Your task to perform on an android device: Open wifi settings Image 0: 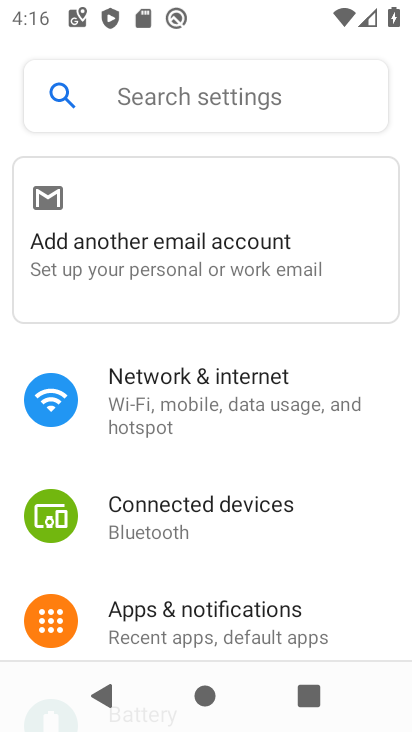
Step 0: click (214, 388)
Your task to perform on an android device: Open wifi settings Image 1: 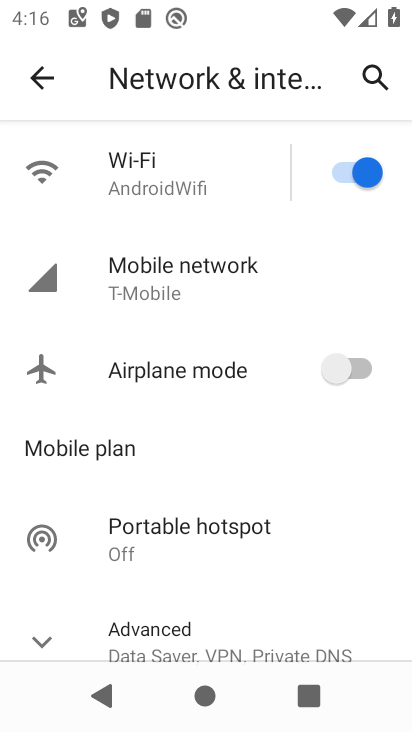
Step 1: click (144, 156)
Your task to perform on an android device: Open wifi settings Image 2: 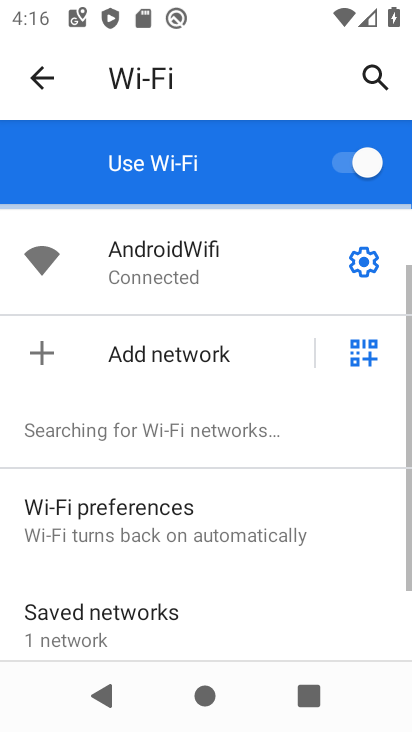
Step 2: click (367, 274)
Your task to perform on an android device: Open wifi settings Image 3: 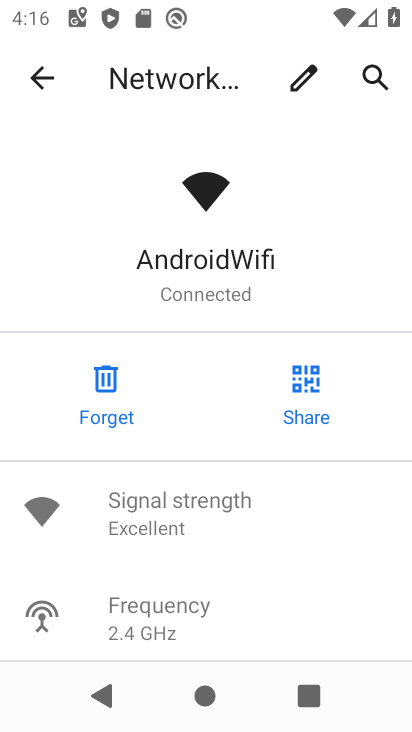
Step 3: task complete